Your task to perform on an android device: Open calendar and show me the second week of next month Image 0: 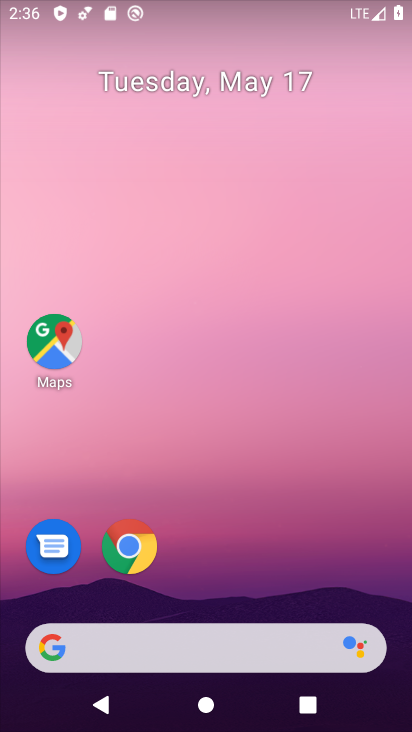
Step 0: press home button
Your task to perform on an android device: Open calendar and show me the second week of next month Image 1: 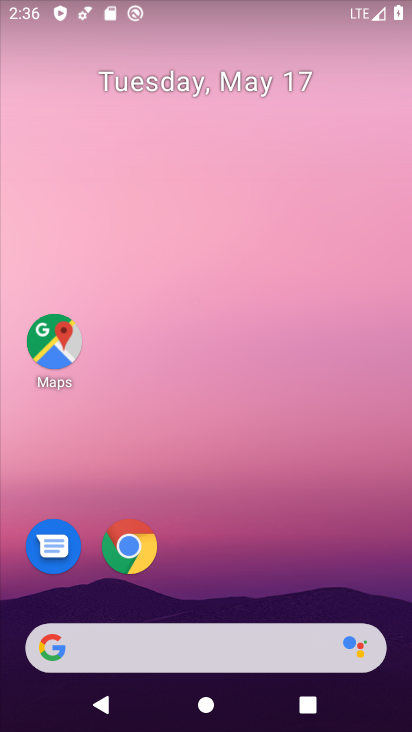
Step 1: drag from (324, 123) to (324, 57)
Your task to perform on an android device: Open calendar and show me the second week of next month Image 2: 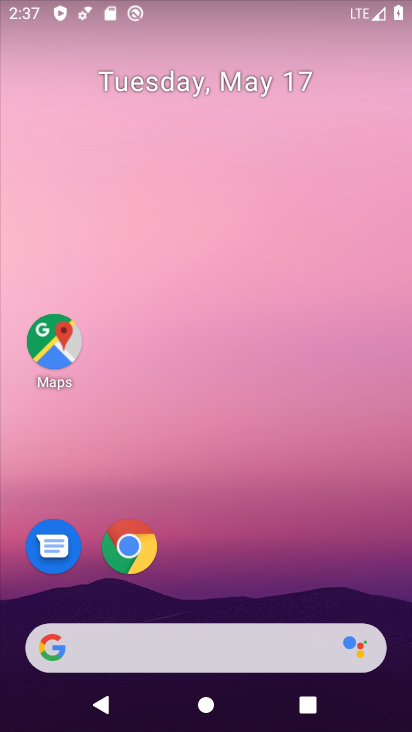
Step 2: drag from (364, 570) to (335, 11)
Your task to perform on an android device: Open calendar and show me the second week of next month Image 3: 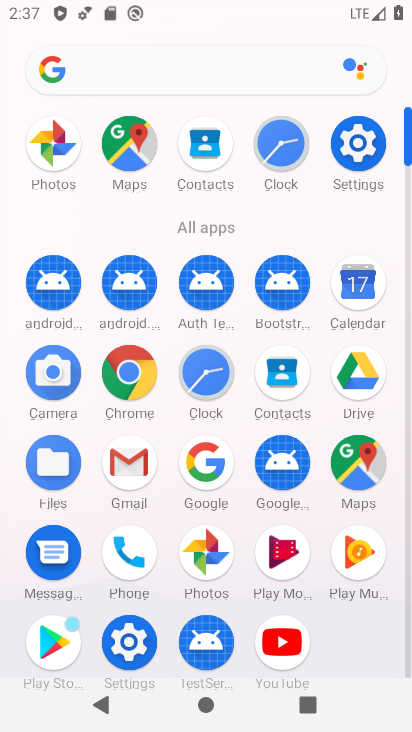
Step 3: click (354, 296)
Your task to perform on an android device: Open calendar and show me the second week of next month Image 4: 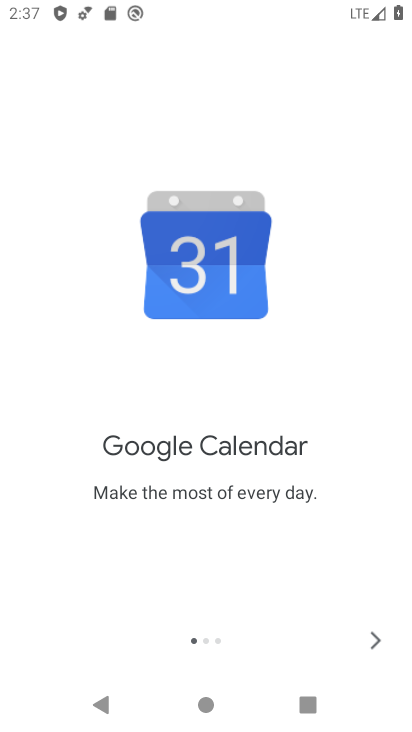
Step 4: click (364, 645)
Your task to perform on an android device: Open calendar and show me the second week of next month Image 5: 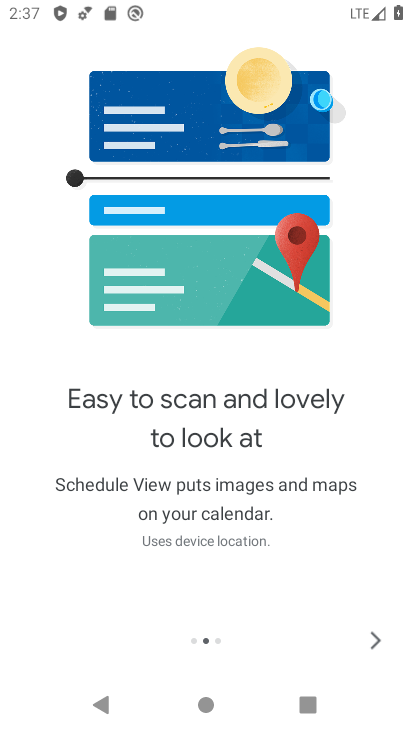
Step 5: click (363, 645)
Your task to perform on an android device: Open calendar and show me the second week of next month Image 6: 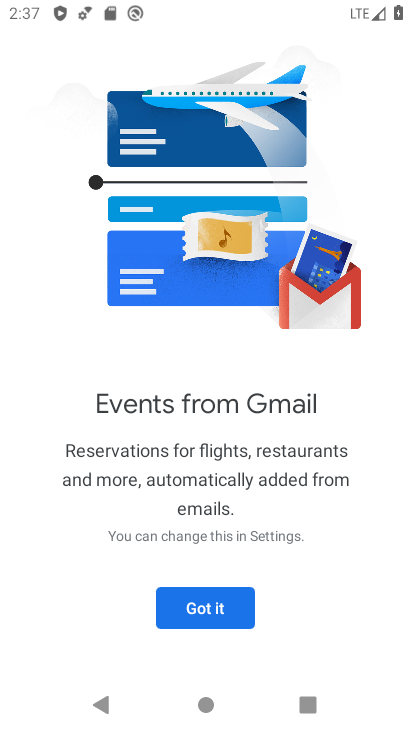
Step 6: click (210, 623)
Your task to perform on an android device: Open calendar and show me the second week of next month Image 7: 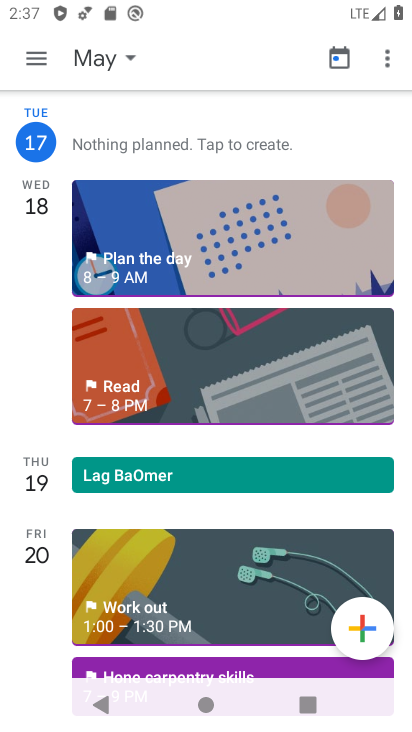
Step 7: click (130, 51)
Your task to perform on an android device: Open calendar and show me the second week of next month Image 8: 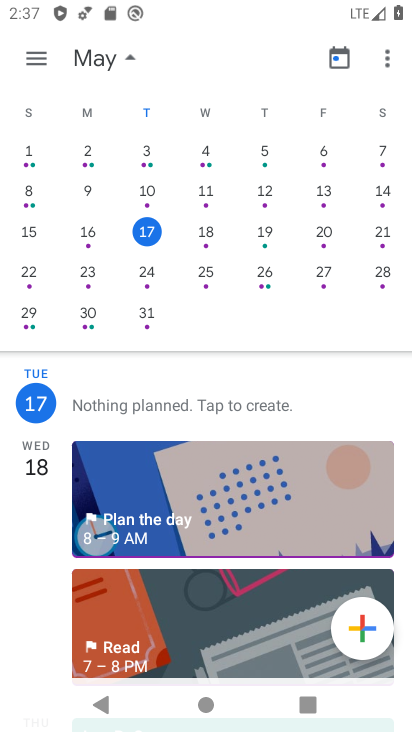
Step 8: drag from (383, 219) to (52, 202)
Your task to perform on an android device: Open calendar and show me the second week of next month Image 9: 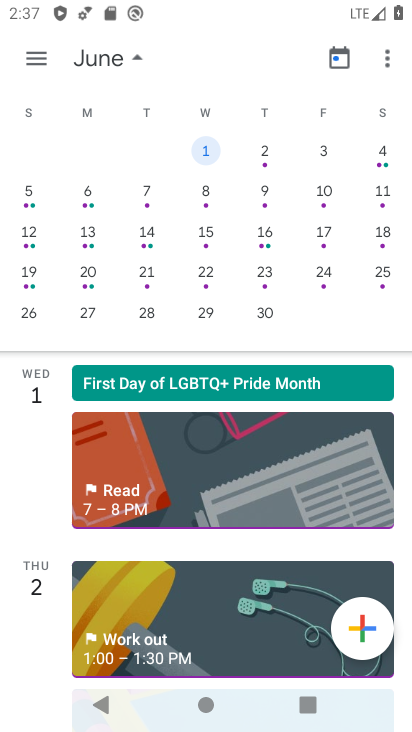
Step 9: click (205, 197)
Your task to perform on an android device: Open calendar and show me the second week of next month Image 10: 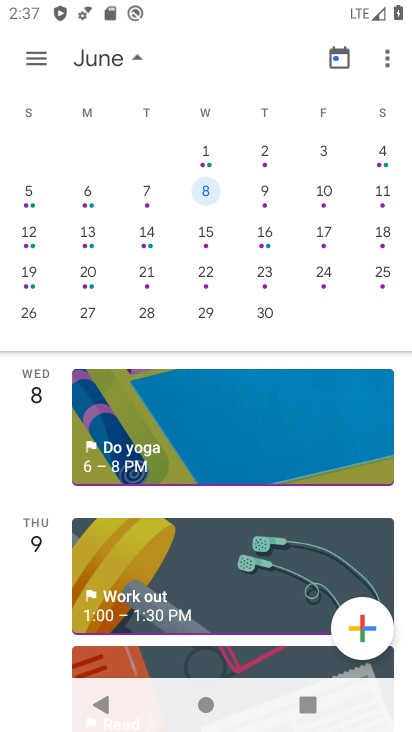
Step 10: task complete